Your task to perform on an android device: read, delete, or share a saved page in the chrome app Image 0: 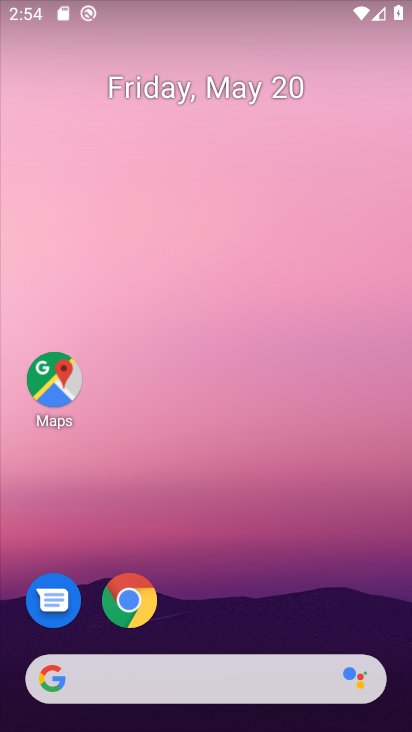
Step 0: drag from (366, 603) to (343, 187)
Your task to perform on an android device: read, delete, or share a saved page in the chrome app Image 1: 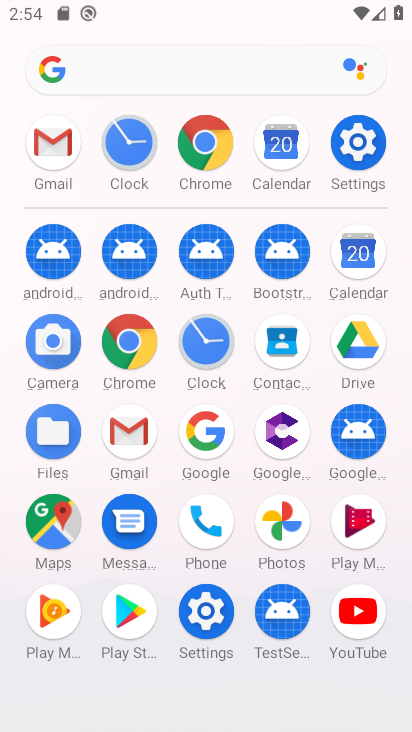
Step 1: click (127, 344)
Your task to perform on an android device: read, delete, or share a saved page in the chrome app Image 2: 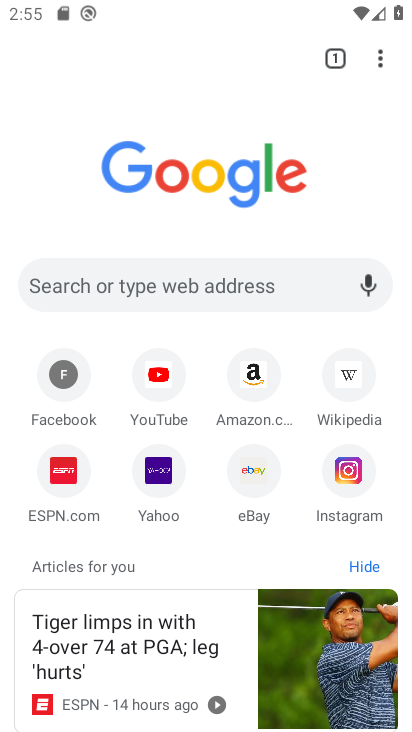
Step 2: click (378, 66)
Your task to perform on an android device: read, delete, or share a saved page in the chrome app Image 3: 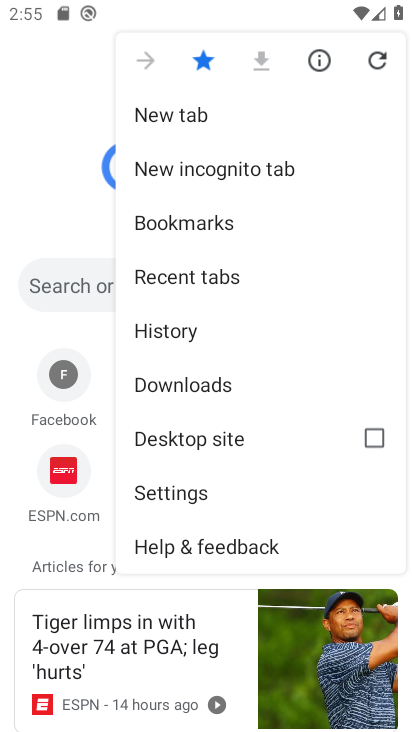
Step 3: drag from (290, 475) to (271, 358)
Your task to perform on an android device: read, delete, or share a saved page in the chrome app Image 4: 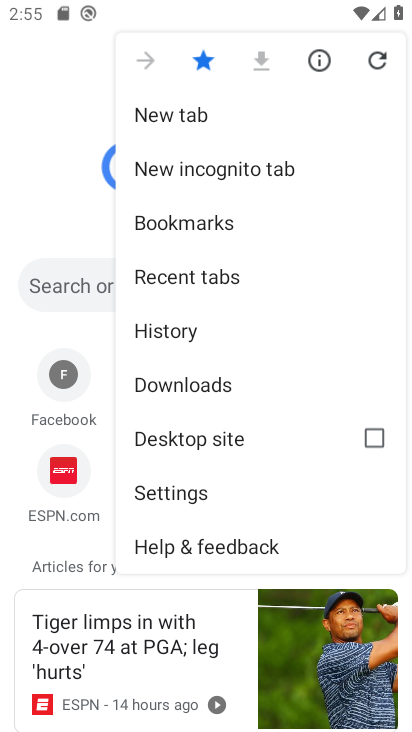
Step 4: click (206, 385)
Your task to perform on an android device: read, delete, or share a saved page in the chrome app Image 5: 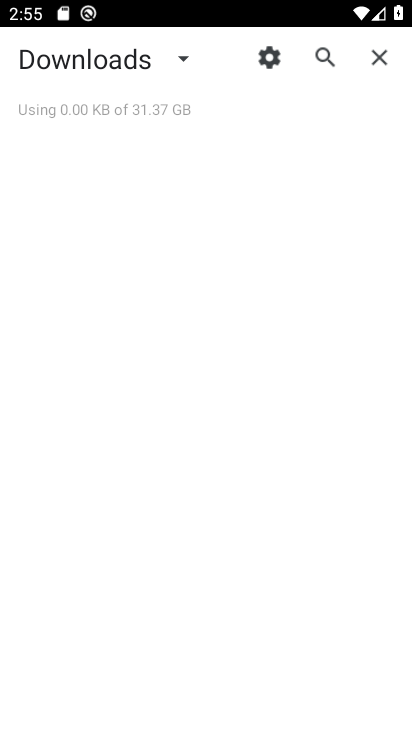
Step 5: click (171, 49)
Your task to perform on an android device: read, delete, or share a saved page in the chrome app Image 6: 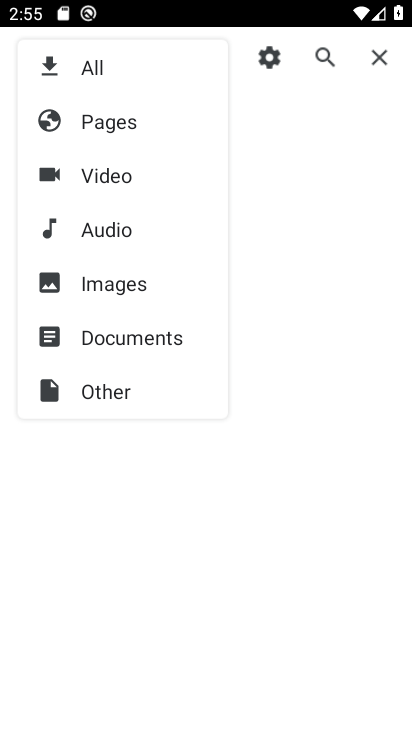
Step 6: click (124, 124)
Your task to perform on an android device: read, delete, or share a saved page in the chrome app Image 7: 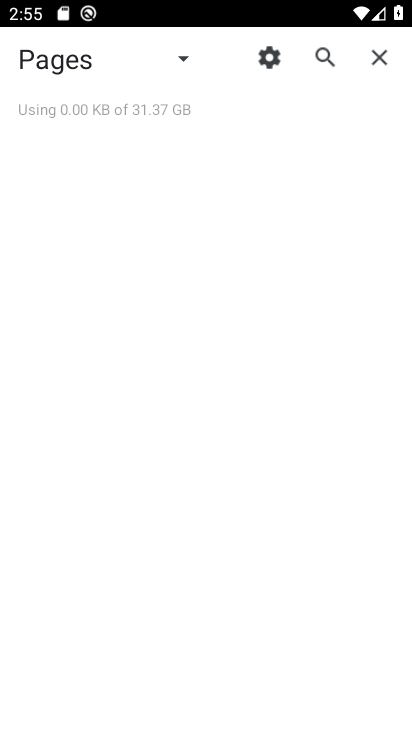
Step 7: task complete